Your task to perform on an android device: change notifications settings Image 0: 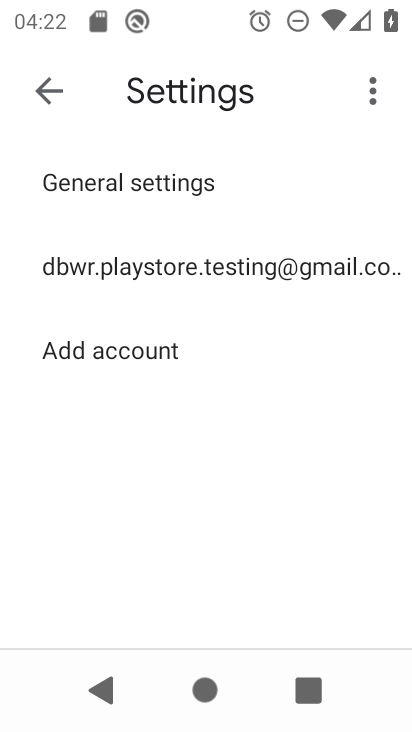
Step 0: press home button
Your task to perform on an android device: change notifications settings Image 1: 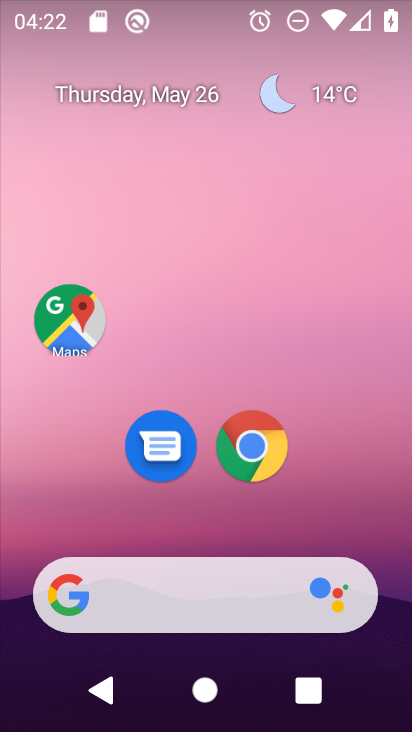
Step 1: drag from (362, 545) to (372, 8)
Your task to perform on an android device: change notifications settings Image 2: 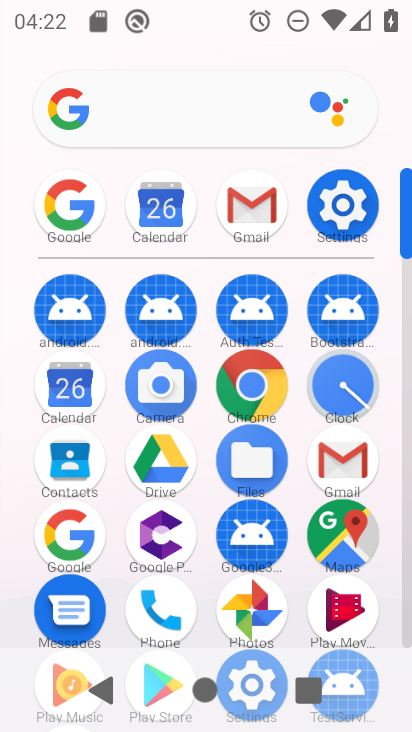
Step 2: click (343, 211)
Your task to perform on an android device: change notifications settings Image 3: 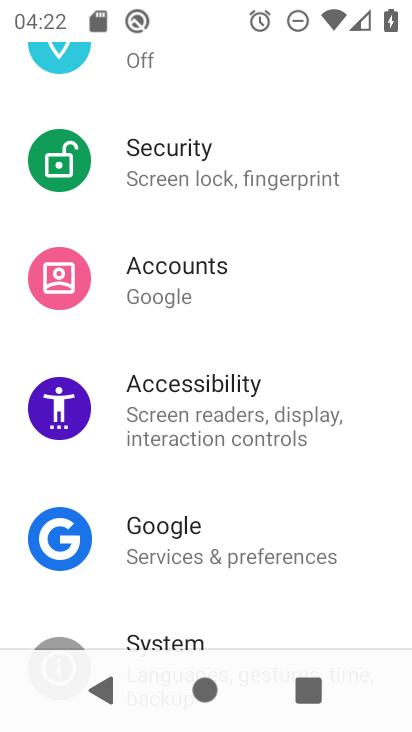
Step 3: drag from (364, 298) to (331, 635)
Your task to perform on an android device: change notifications settings Image 4: 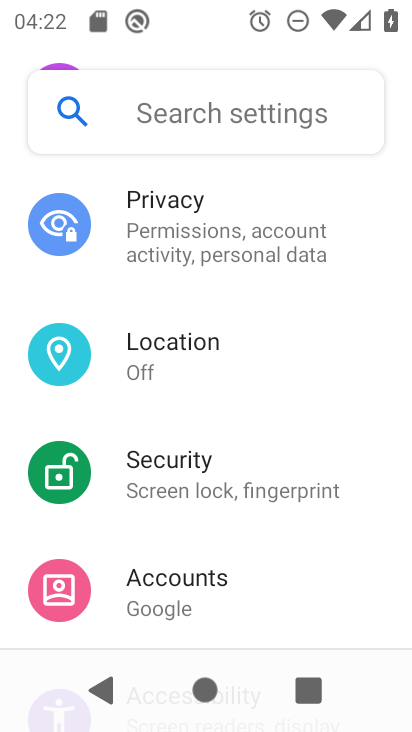
Step 4: drag from (266, 234) to (260, 602)
Your task to perform on an android device: change notifications settings Image 5: 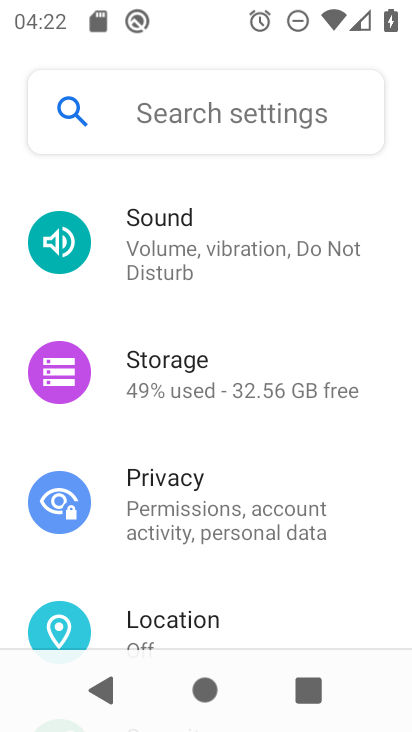
Step 5: drag from (272, 238) to (248, 584)
Your task to perform on an android device: change notifications settings Image 6: 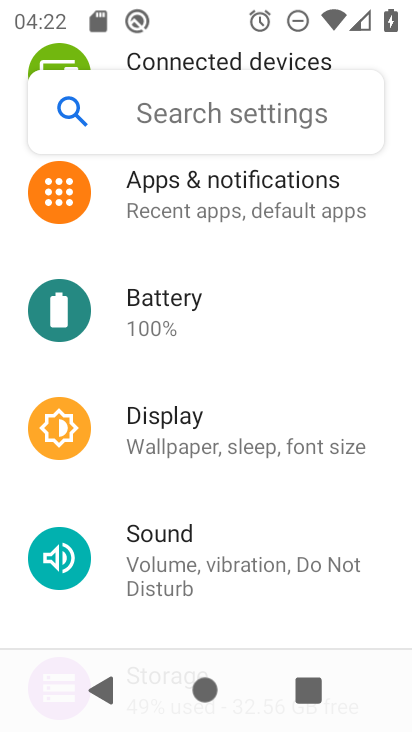
Step 6: click (226, 209)
Your task to perform on an android device: change notifications settings Image 7: 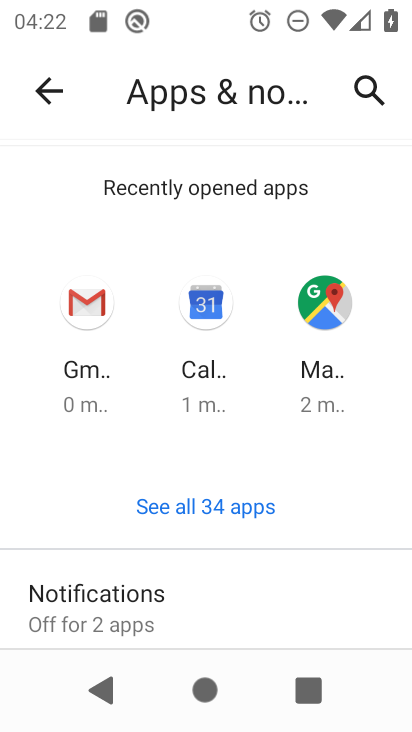
Step 7: click (85, 594)
Your task to perform on an android device: change notifications settings Image 8: 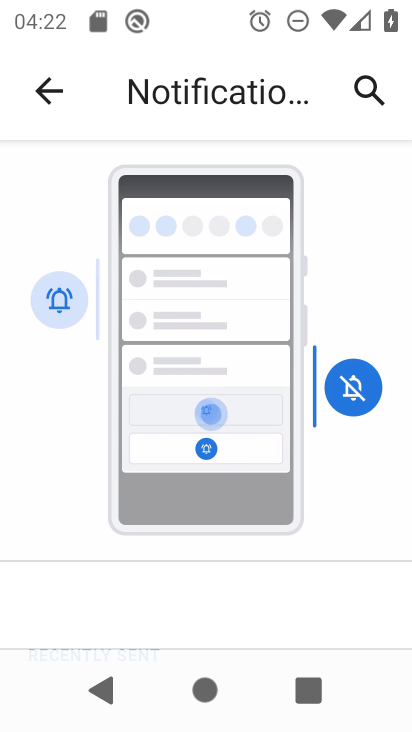
Step 8: drag from (169, 604) to (184, 297)
Your task to perform on an android device: change notifications settings Image 9: 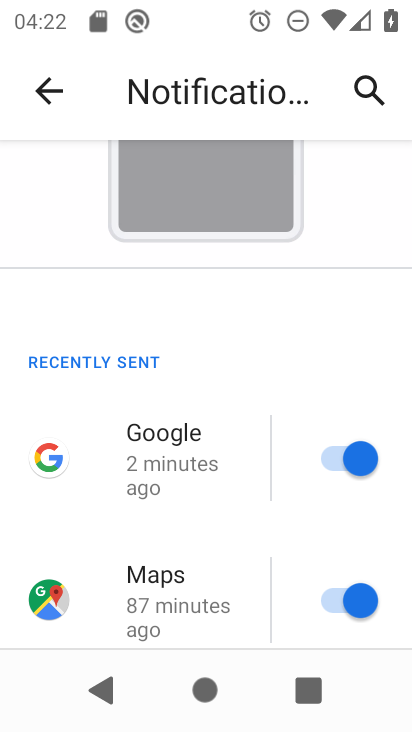
Step 9: drag from (162, 517) to (167, 207)
Your task to perform on an android device: change notifications settings Image 10: 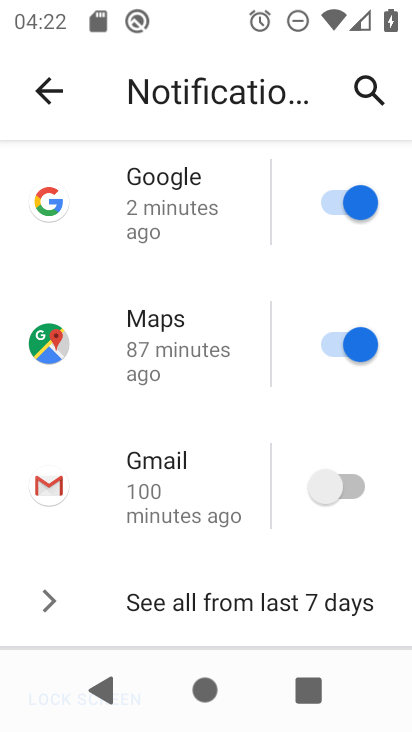
Step 10: drag from (183, 446) to (193, 183)
Your task to perform on an android device: change notifications settings Image 11: 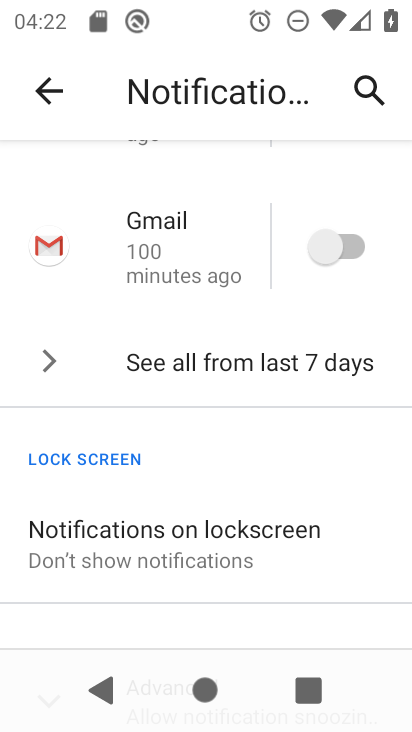
Step 11: click (188, 379)
Your task to perform on an android device: change notifications settings Image 12: 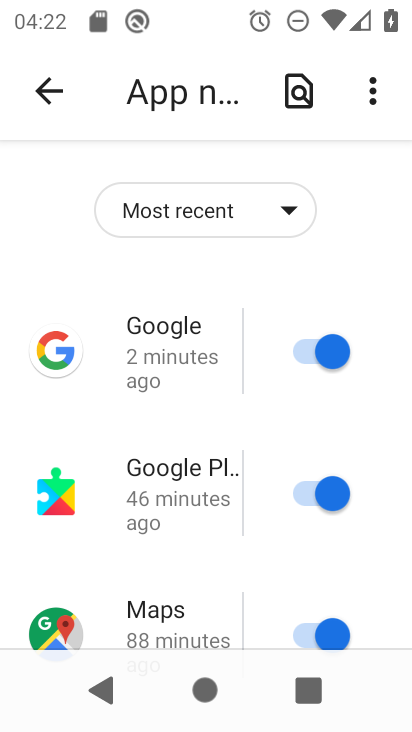
Step 12: click (282, 217)
Your task to perform on an android device: change notifications settings Image 13: 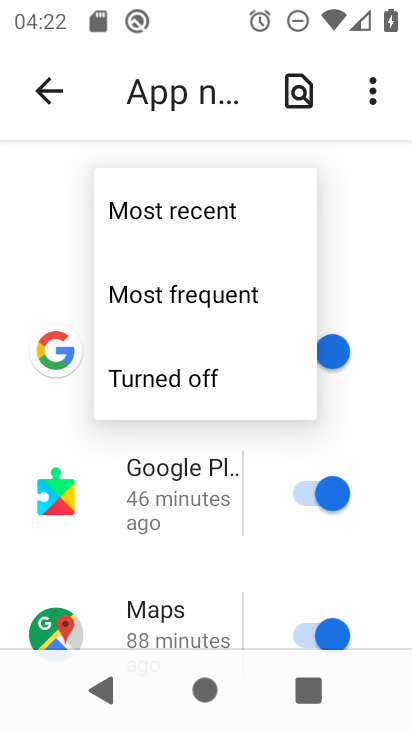
Step 13: click (166, 311)
Your task to perform on an android device: change notifications settings Image 14: 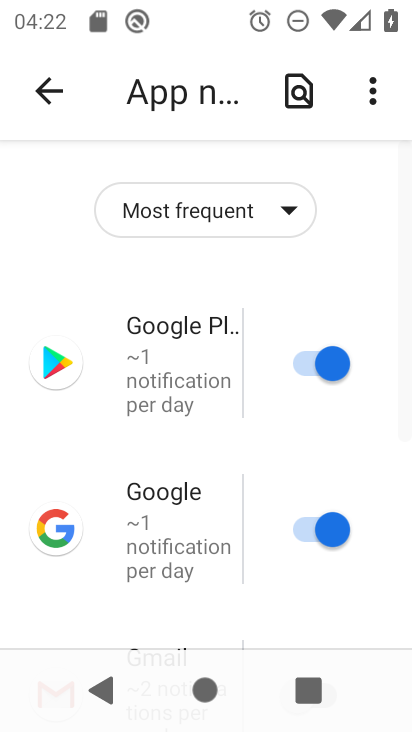
Step 14: task complete